Your task to perform on an android device: Add "acer predator" to the cart on bestbuy.com, then select checkout. Image 0: 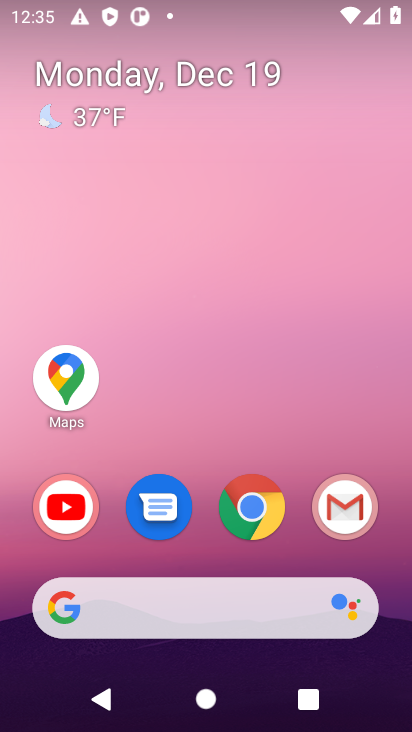
Step 0: click (257, 516)
Your task to perform on an android device: Add "acer predator" to the cart on bestbuy.com, then select checkout. Image 1: 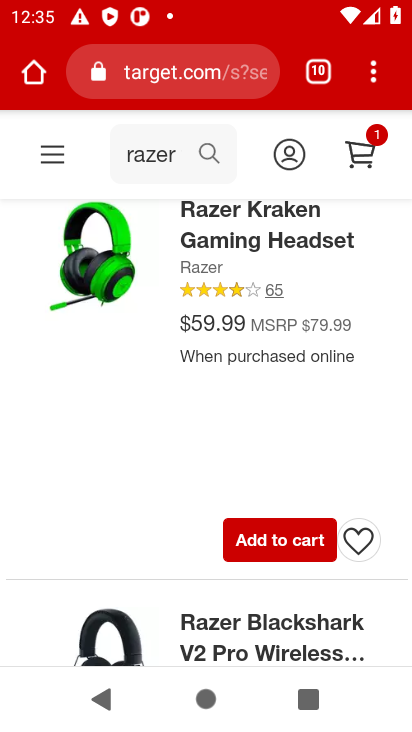
Step 1: click (164, 66)
Your task to perform on an android device: Add "acer predator" to the cart on bestbuy.com, then select checkout. Image 2: 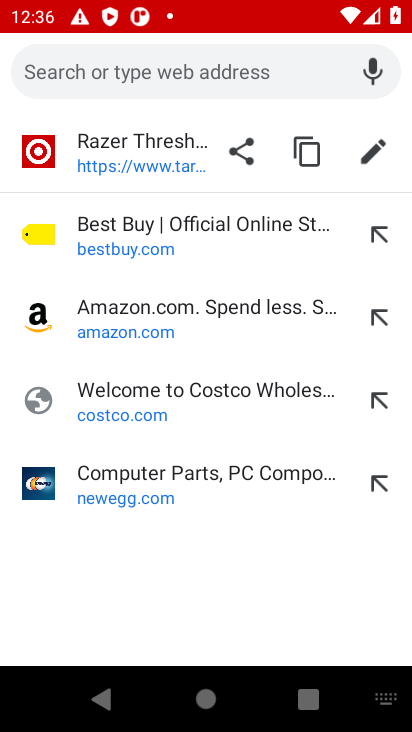
Step 2: click (115, 244)
Your task to perform on an android device: Add "acer predator" to the cart on bestbuy.com, then select checkout. Image 3: 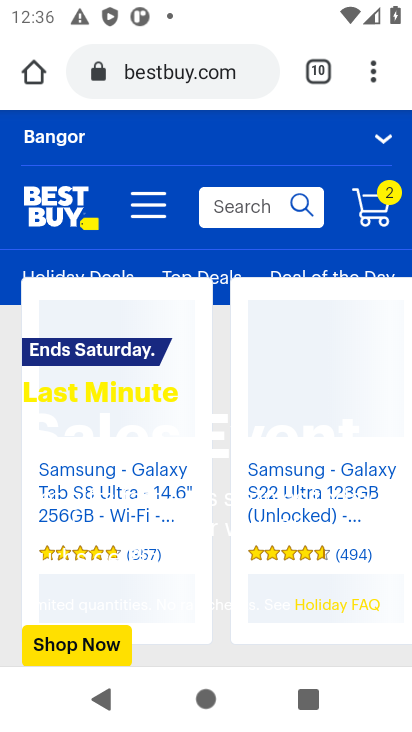
Step 3: click (220, 215)
Your task to perform on an android device: Add "acer predator" to the cart on bestbuy.com, then select checkout. Image 4: 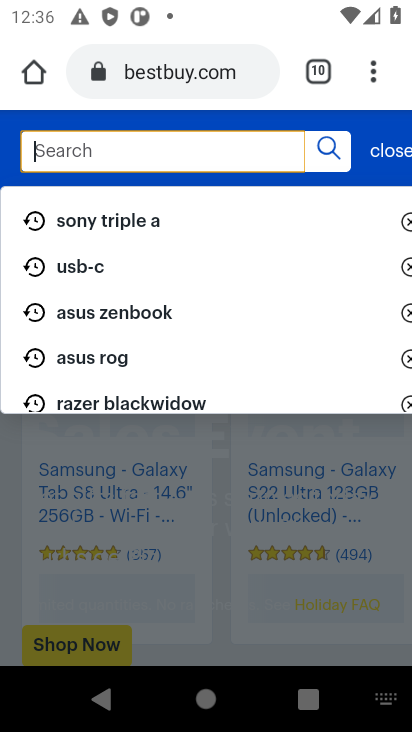
Step 4: type "acer predator"
Your task to perform on an android device: Add "acer predator" to the cart on bestbuy.com, then select checkout. Image 5: 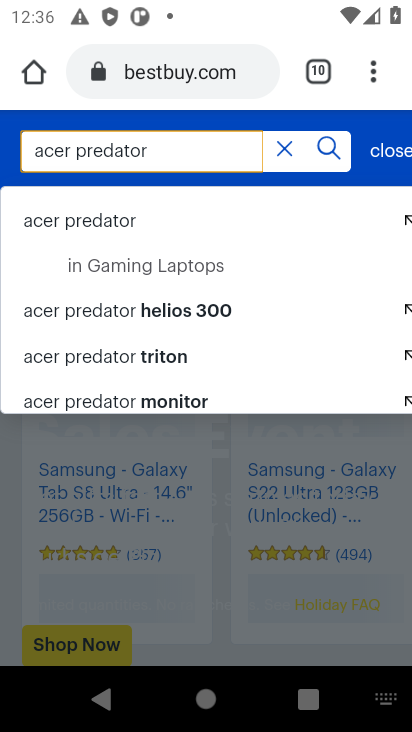
Step 5: click (98, 220)
Your task to perform on an android device: Add "acer predator" to the cart on bestbuy.com, then select checkout. Image 6: 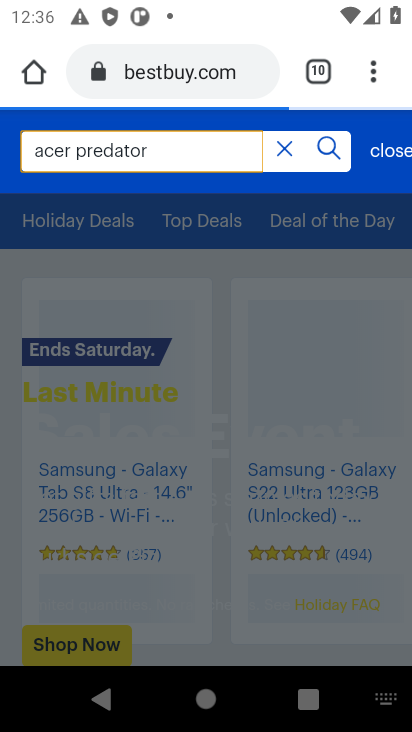
Step 6: click (328, 147)
Your task to perform on an android device: Add "acer predator" to the cart on bestbuy.com, then select checkout. Image 7: 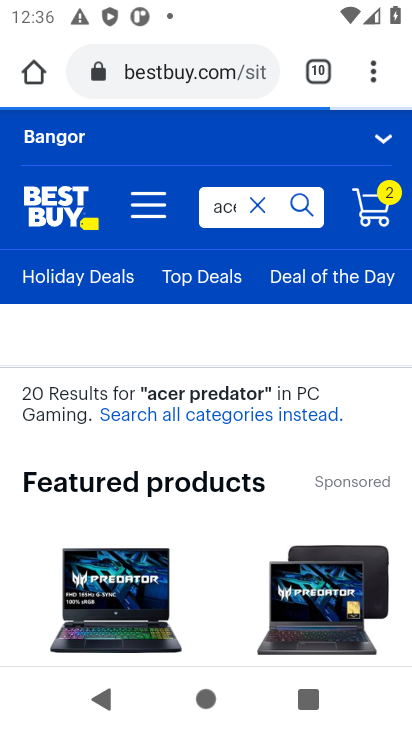
Step 7: drag from (110, 487) to (112, 161)
Your task to perform on an android device: Add "acer predator" to the cart on bestbuy.com, then select checkout. Image 8: 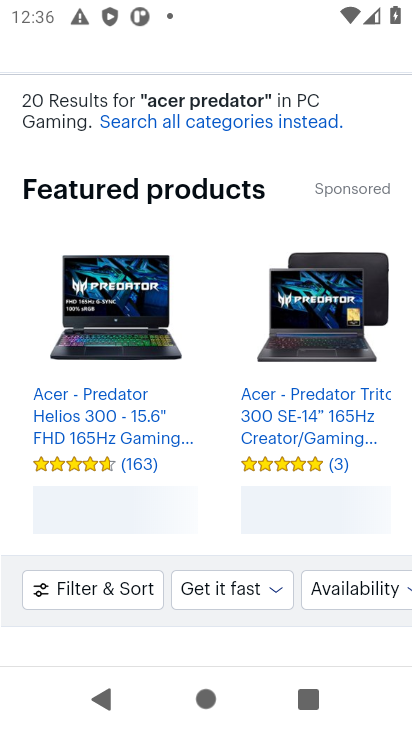
Step 8: drag from (130, 464) to (135, 176)
Your task to perform on an android device: Add "acer predator" to the cart on bestbuy.com, then select checkout. Image 9: 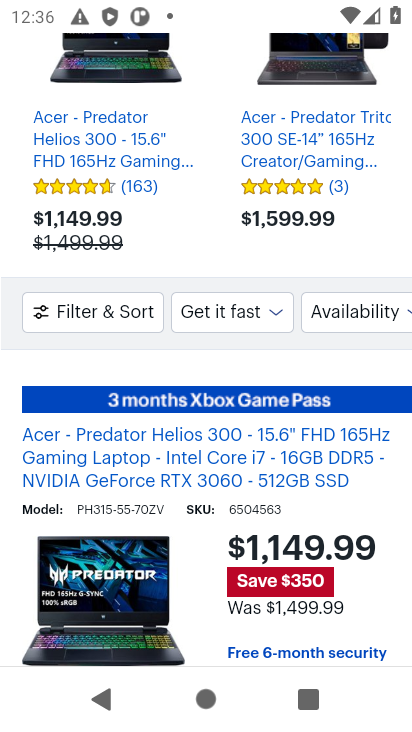
Step 9: drag from (156, 495) to (163, 192)
Your task to perform on an android device: Add "acer predator" to the cart on bestbuy.com, then select checkout. Image 10: 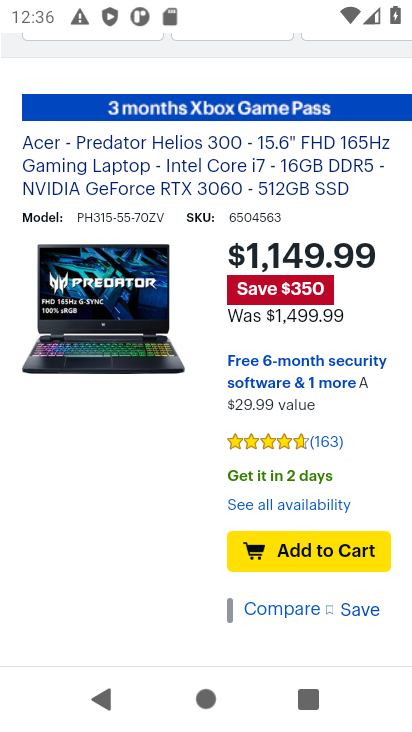
Step 10: click (299, 552)
Your task to perform on an android device: Add "acer predator" to the cart on bestbuy.com, then select checkout. Image 11: 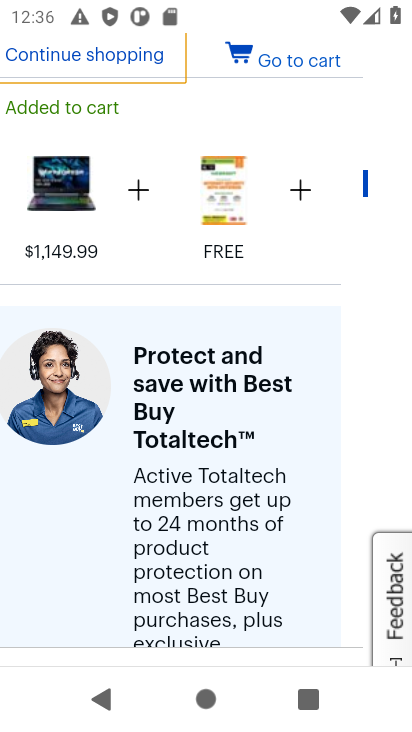
Step 11: click (295, 64)
Your task to perform on an android device: Add "acer predator" to the cart on bestbuy.com, then select checkout. Image 12: 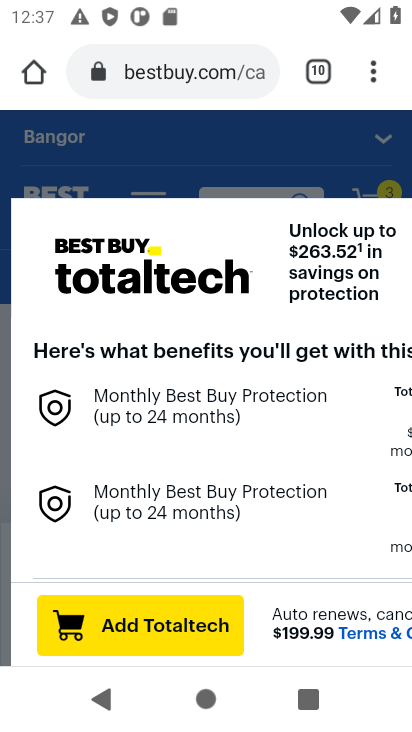
Step 12: click (311, 152)
Your task to perform on an android device: Add "acer predator" to the cart on bestbuy.com, then select checkout. Image 13: 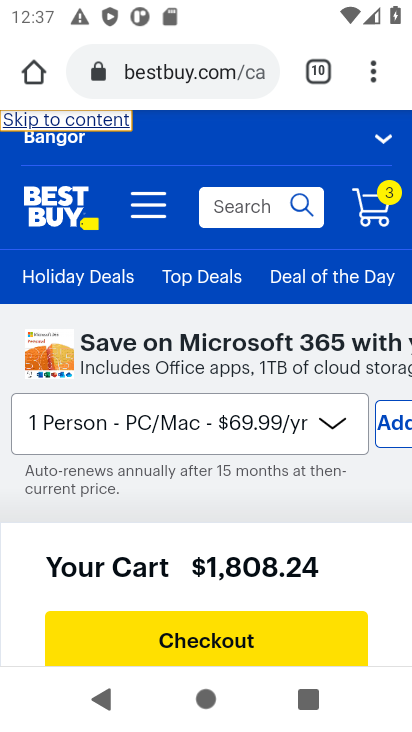
Step 13: click (173, 632)
Your task to perform on an android device: Add "acer predator" to the cart on bestbuy.com, then select checkout. Image 14: 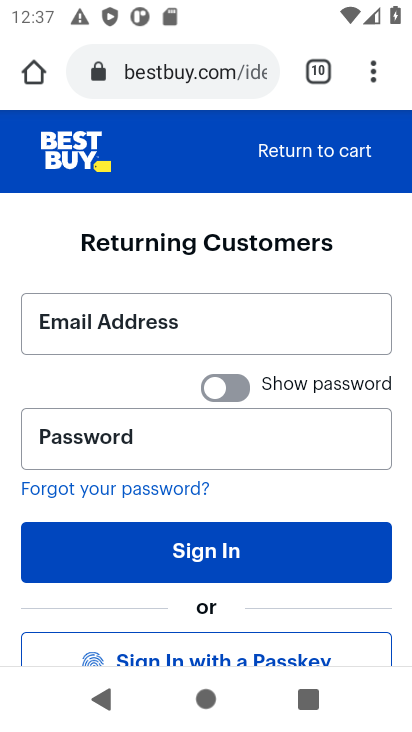
Step 14: task complete